Your task to perform on an android device: see sites visited before in the chrome app Image 0: 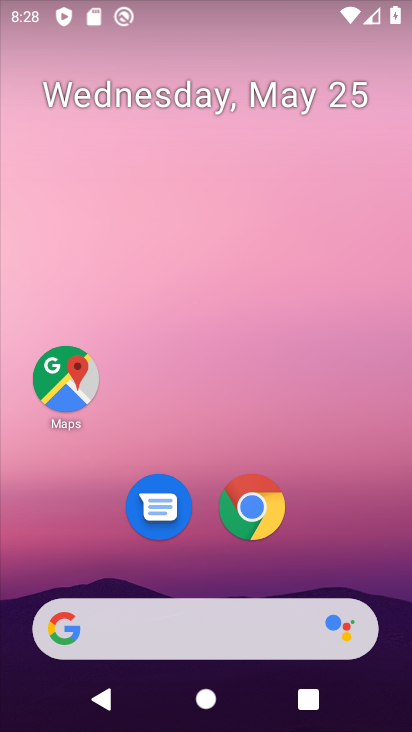
Step 0: click (254, 528)
Your task to perform on an android device: see sites visited before in the chrome app Image 1: 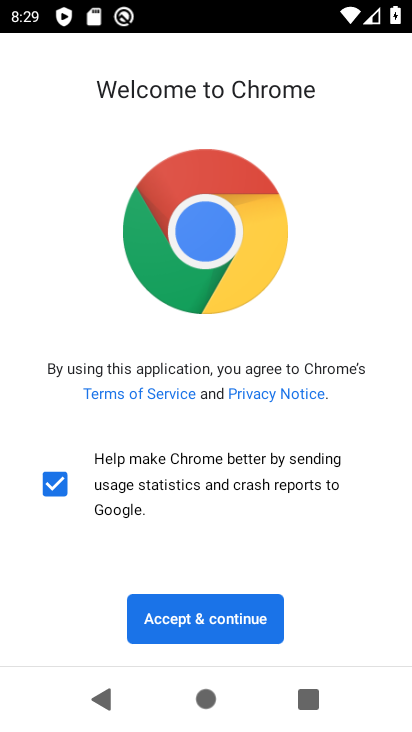
Step 1: click (210, 595)
Your task to perform on an android device: see sites visited before in the chrome app Image 2: 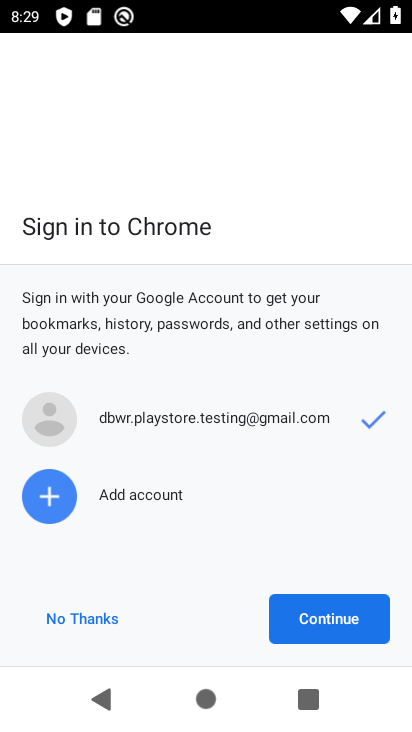
Step 2: click (317, 608)
Your task to perform on an android device: see sites visited before in the chrome app Image 3: 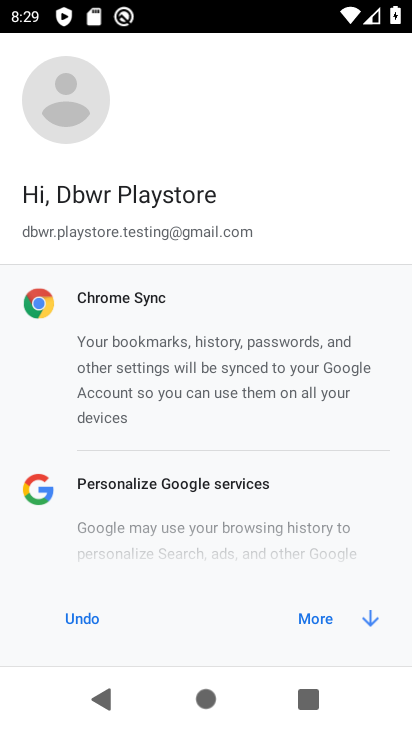
Step 3: click (317, 608)
Your task to perform on an android device: see sites visited before in the chrome app Image 4: 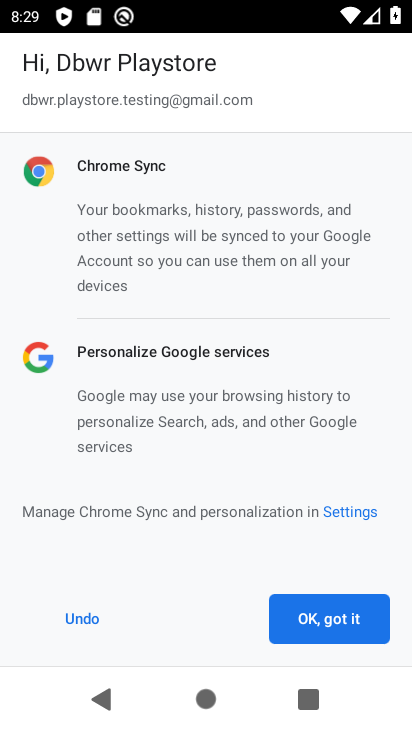
Step 4: click (317, 608)
Your task to perform on an android device: see sites visited before in the chrome app Image 5: 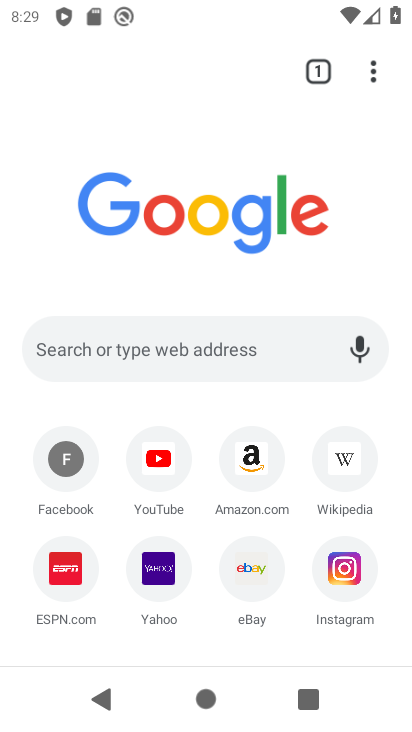
Step 5: click (368, 62)
Your task to perform on an android device: see sites visited before in the chrome app Image 6: 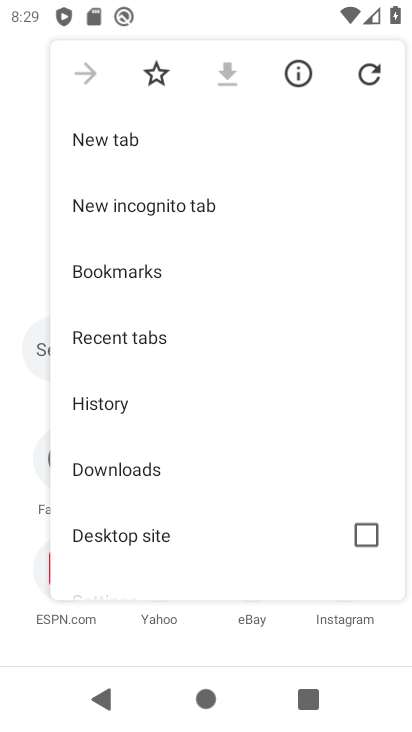
Step 6: click (368, 80)
Your task to perform on an android device: see sites visited before in the chrome app Image 7: 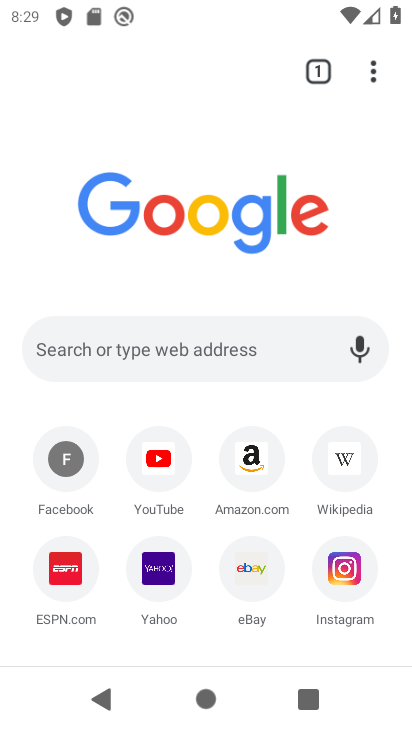
Step 7: click (369, 85)
Your task to perform on an android device: see sites visited before in the chrome app Image 8: 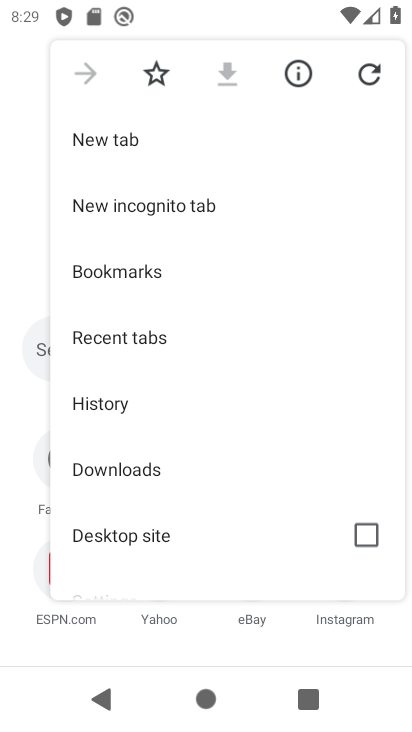
Step 8: click (118, 406)
Your task to perform on an android device: see sites visited before in the chrome app Image 9: 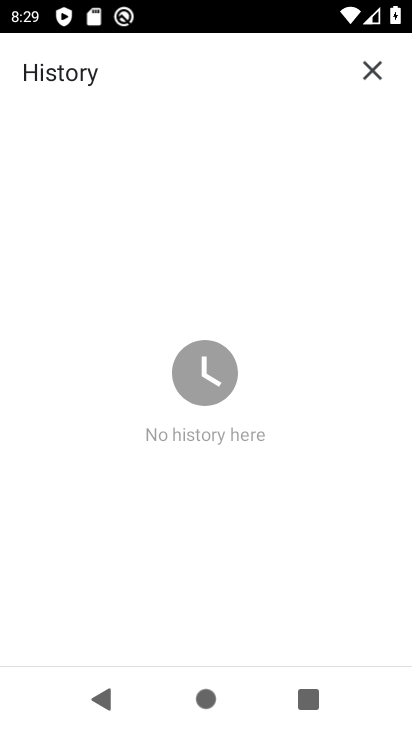
Step 9: task complete